Your task to perform on an android device: turn on notifications settings in the gmail app Image 0: 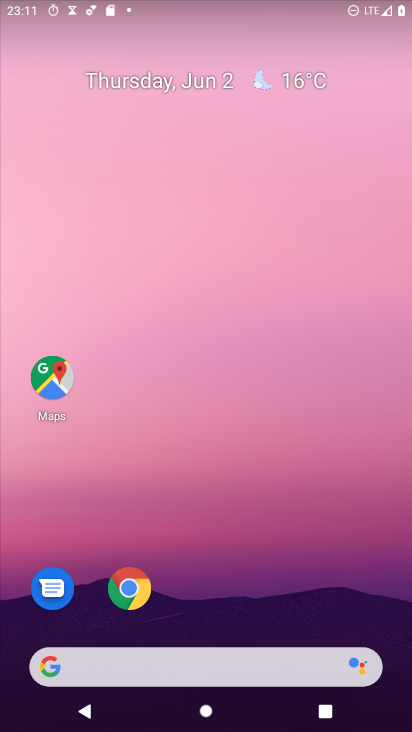
Step 0: drag from (223, 520) to (292, 87)
Your task to perform on an android device: turn on notifications settings in the gmail app Image 1: 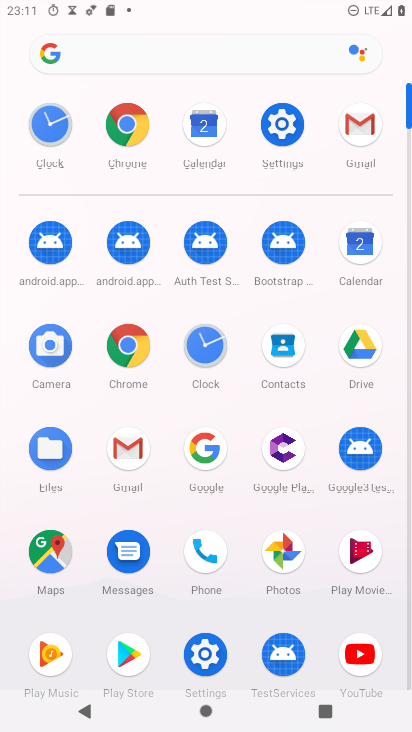
Step 1: click (367, 123)
Your task to perform on an android device: turn on notifications settings in the gmail app Image 2: 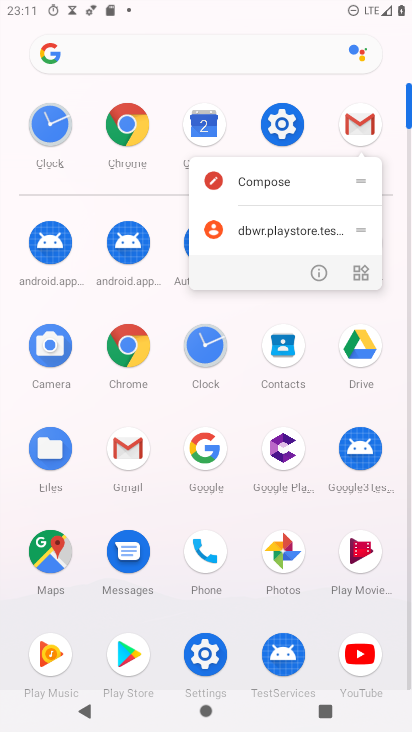
Step 2: click (311, 272)
Your task to perform on an android device: turn on notifications settings in the gmail app Image 3: 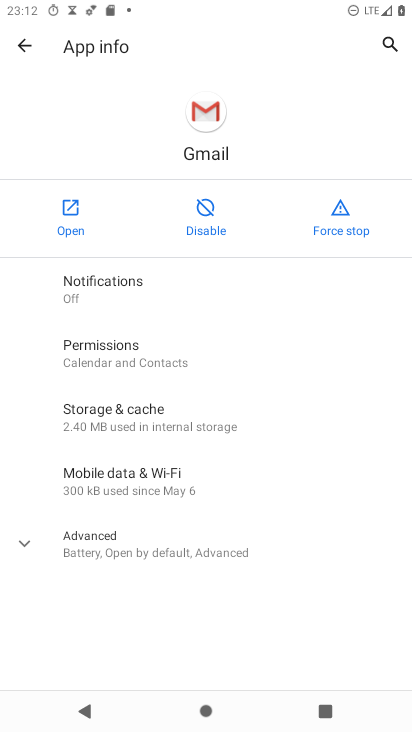
Step 3: click (107, 299)
Your task to perform on an android device: turn on notifications settings in the gmail app Image 4: 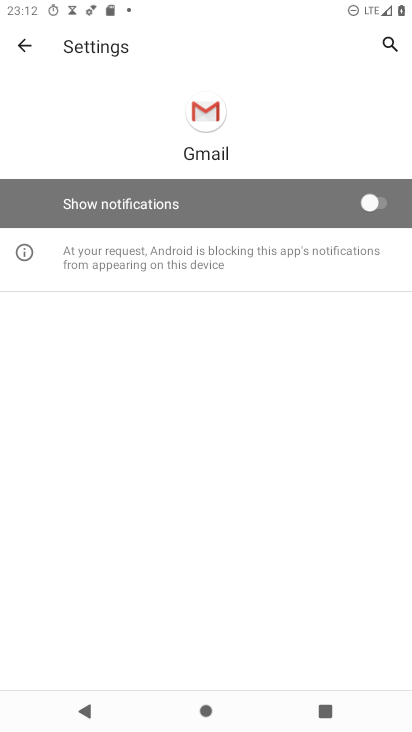
Step 4: click (368, 207)
Your task to perform on an android device: turn on notifications settings in the gmail app Image 5: 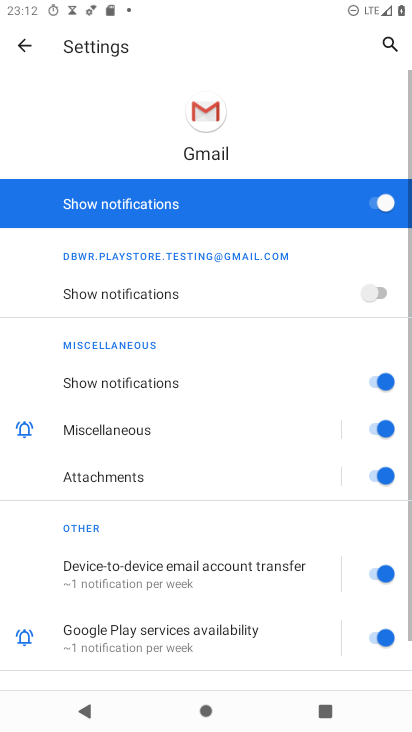
Step 5: task complete